Your task to perform on an android device: turn on the 24-hour format for clock Image 0: 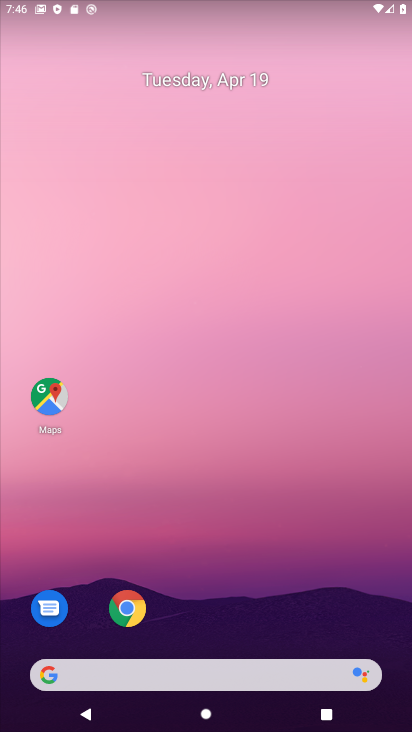
Step 0: drag from (211, 573) to (220, 287)
Your task to perform on an android device: turn on the 24-hour format for clock Image 1: 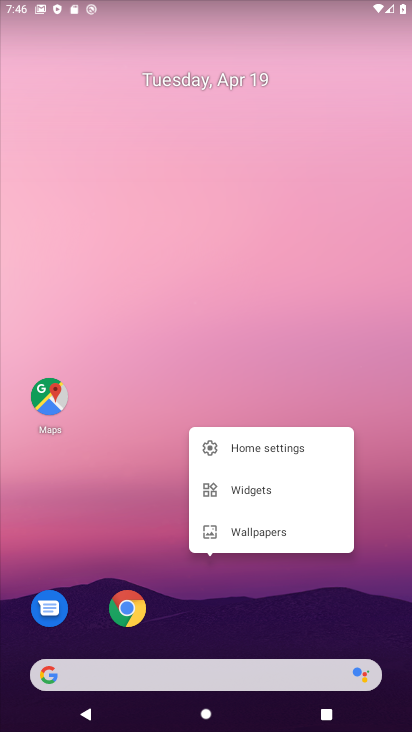
Step 1: click (146, 476)
Your task to perform on an android device: turn on the 24-hour format for clock Image 2: 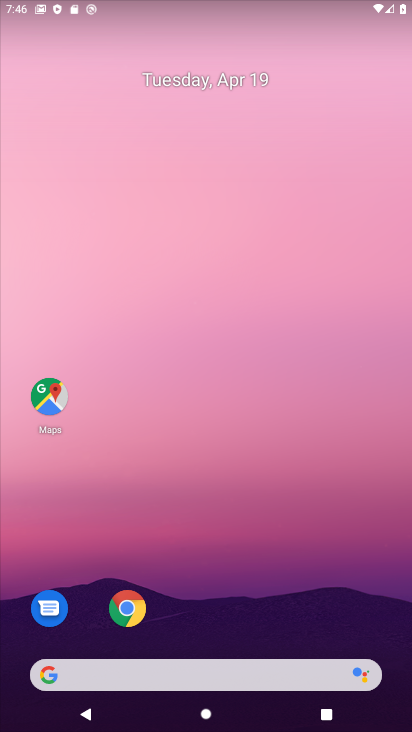
Step 2: drag from (255, 613) to (220, 68)
Your task to perform on an android device: turn on the 24-hour format for clock Image 3: 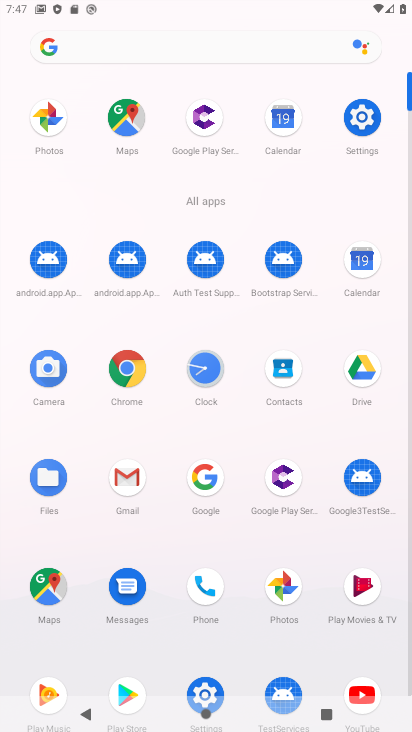
Step 3: click (375, 105)
Your task to perform on an android device: turn on the 24-hour format for clock Image 4: 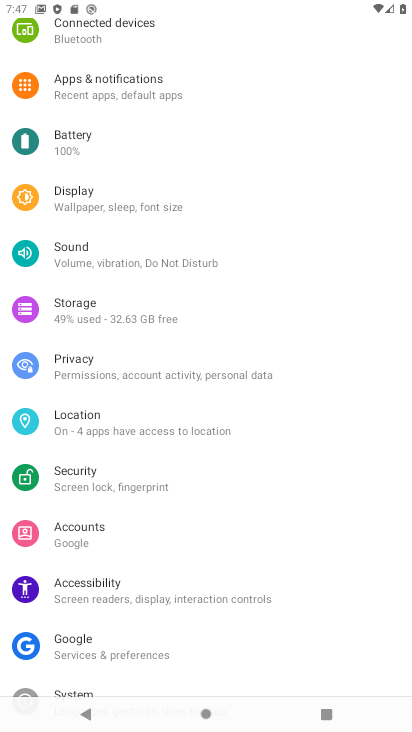
Step 4: click (201, 713)
Your task to perform on an android device: turn on the 24-hour format for clock Image 5: 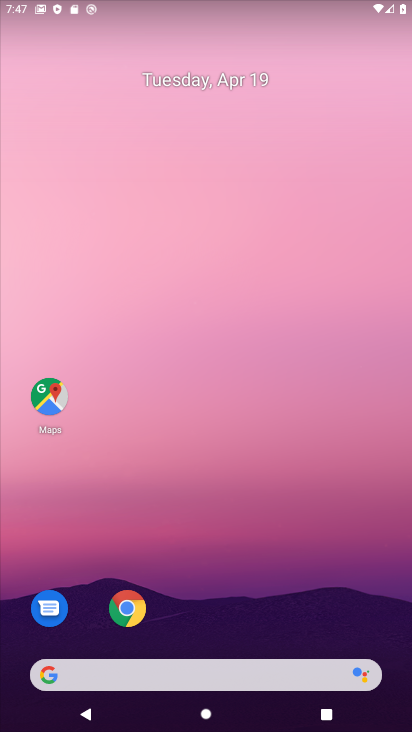
Step 5: drag from (268, 634) to (272, 217)
Your task to perform on an android device: turn on the 24-hour format for clock Image 6: 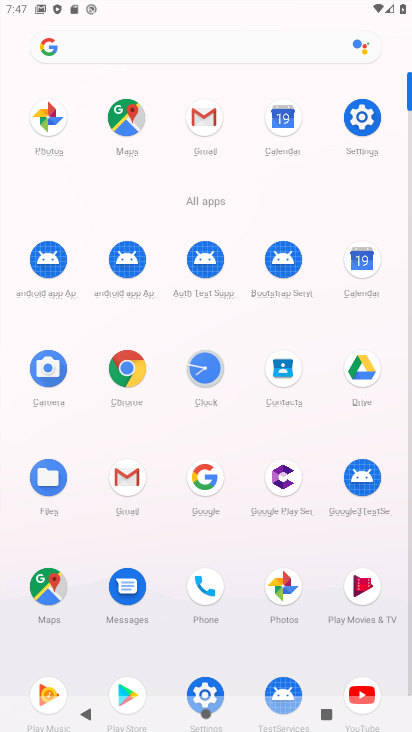
Step 6: click (220, 361)
Your task to perform on an android device: turn on the 24-hour format for clock Image 7: 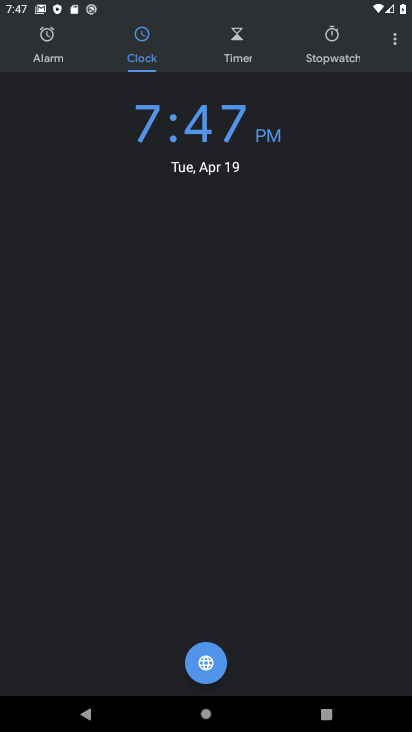
Step 7: click (394, 35)
Your task to perform on an android device: turn on the 24-hour format for clock Image 8: 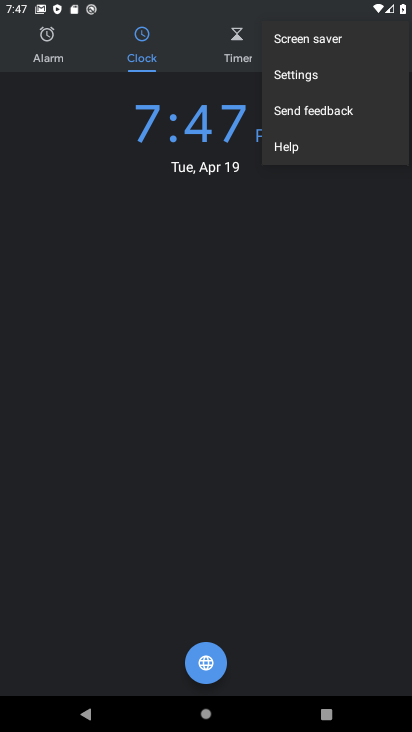
Step 8: click (325, 68)
Your task to perform on an android device: turn on the 24-hour format for clock Image 9: 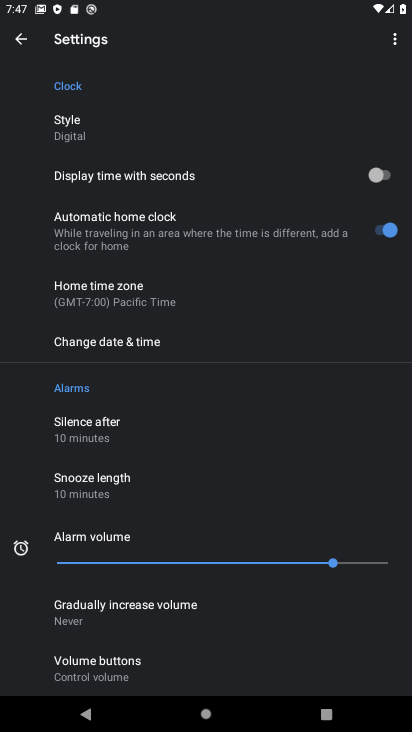
Step 9: drag from (214, 615) to (209, 369)
Your task to perform on an android device: turn on the 24-hour format for clock Image 10: 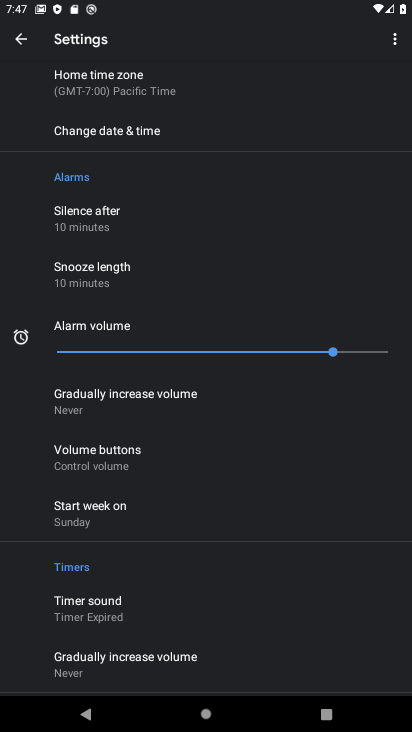
Step 10: click (112, 120)
Your task to perform on an android device: turn on the 24-hour format for clock Image 11: 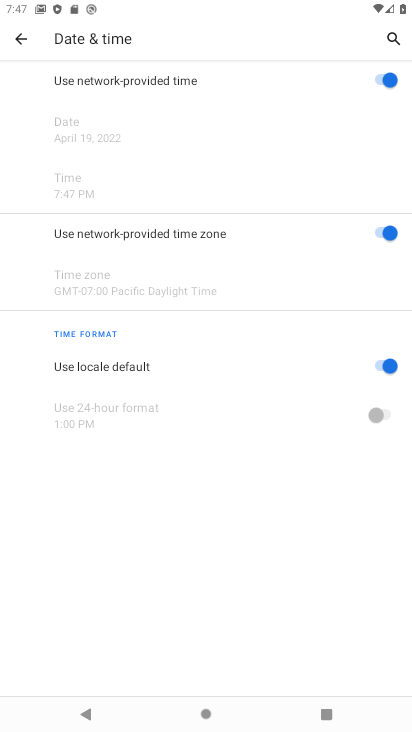
Step 11: click (378, 421)
Your task to perform on an android device: turn on the 24-hour format for clock Image 12: 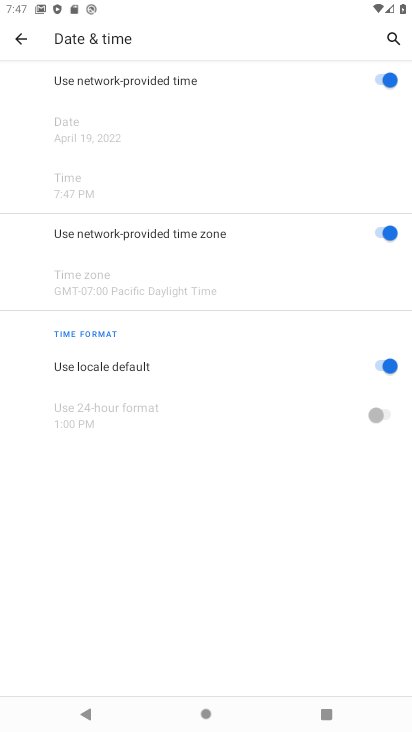
Step 12: click (377, 358)
Your task to perform on an android device: turn on the 24-hour format for clock Image 13: 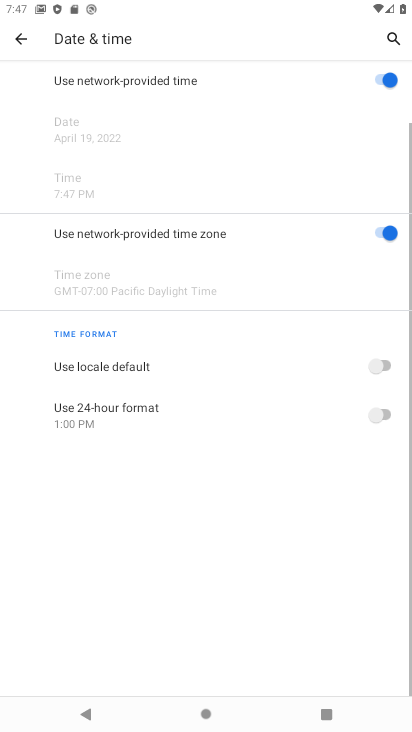
Step 13: click (378, 409)
Your task to perform on an android device: turn on the 24-hour format for clock Image 14: 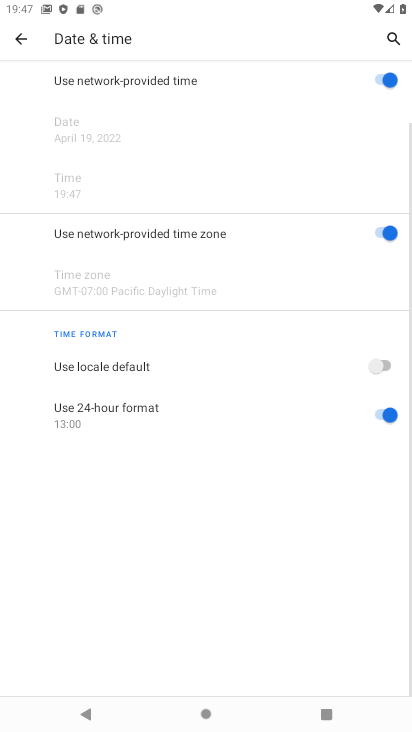
Step 14: task complete